Your task to perform on an android device: Open network settings Image 0: 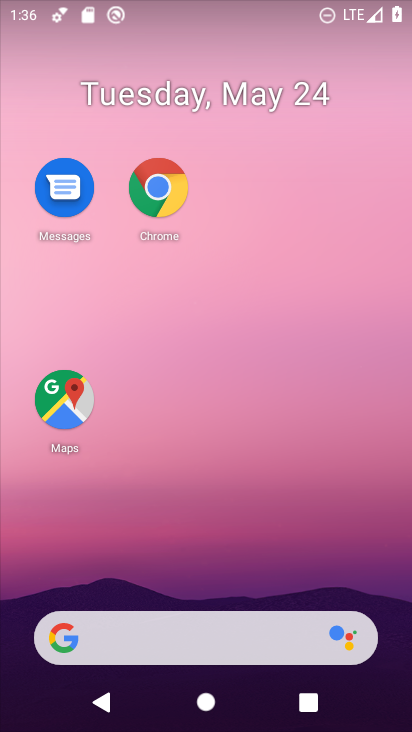
Step 0: drag from (255, 585) to (201, 26)
Your task to perform on an android device: Open network settings Image 1: 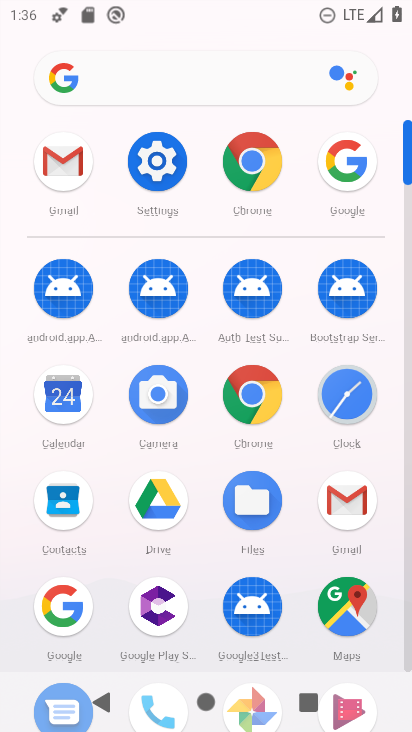
Step 1: click (154, 172)
Your task to perform on an android device: Open network settings Image 2: 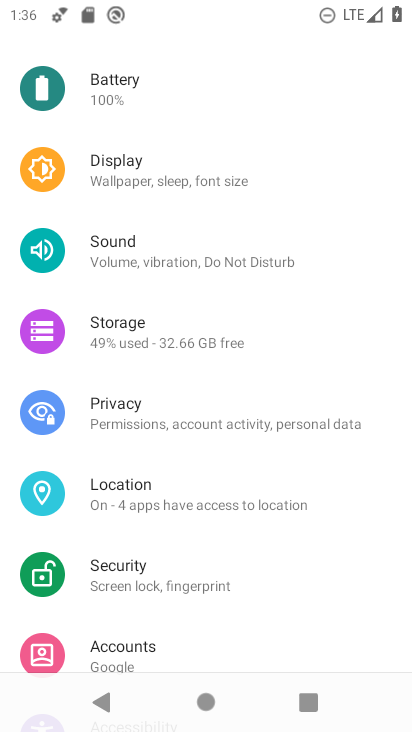
Step 2: drag from (161, 506) to (215, 725)
Your task to perform on an android device: Open network settings Image 3: 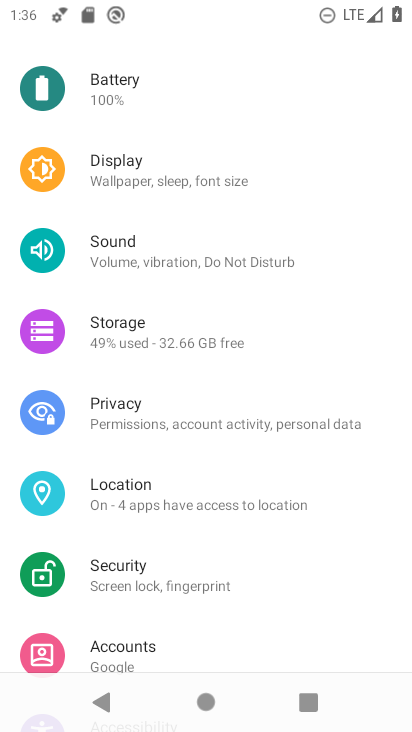
Step 3: drag from (187, 182) to (182, 730)
Your task to perform on an android device: Open network settings Image 4: 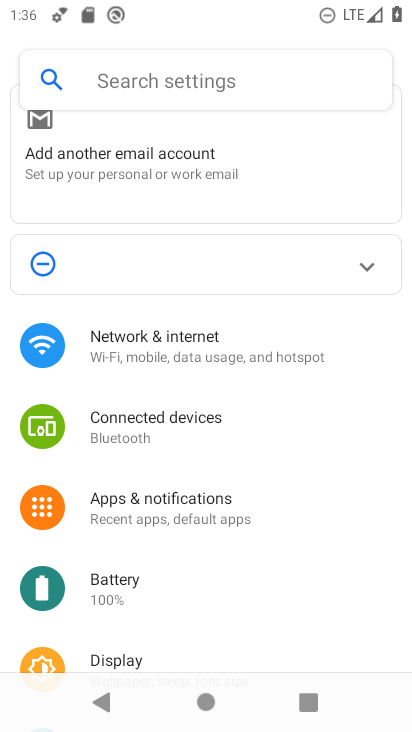
Step 4: drag from (166, 231) to (135, 701)
Your task to perform on an android device: Open network settings Image 5: 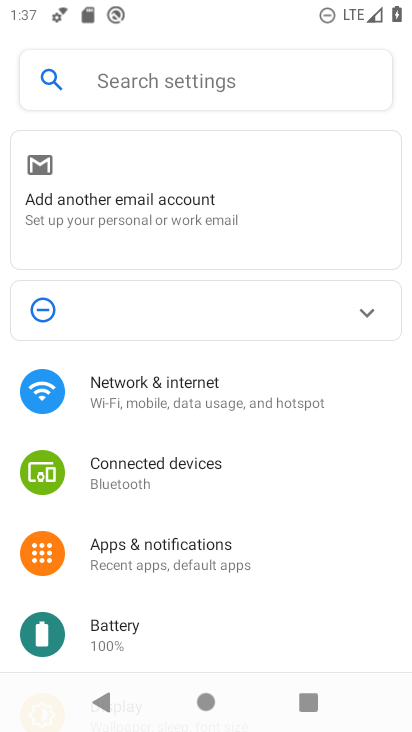
Step 5: click (185, 359)
Your task to perform on an android device: Open network settings Image 6: 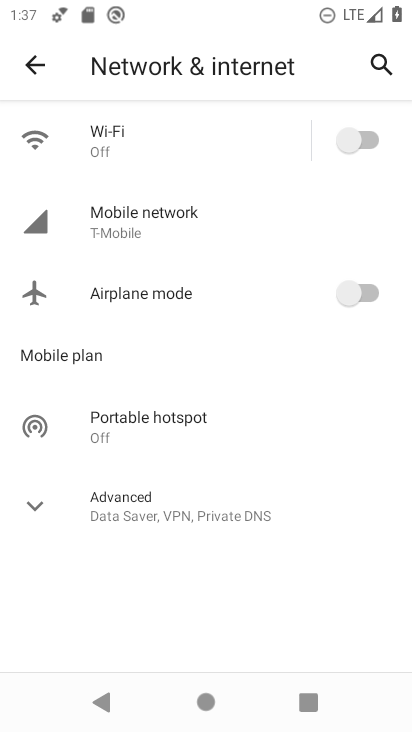
Step 6: task complete